Your task to perform on an android device: allow cookies in the chrome app Image 0: 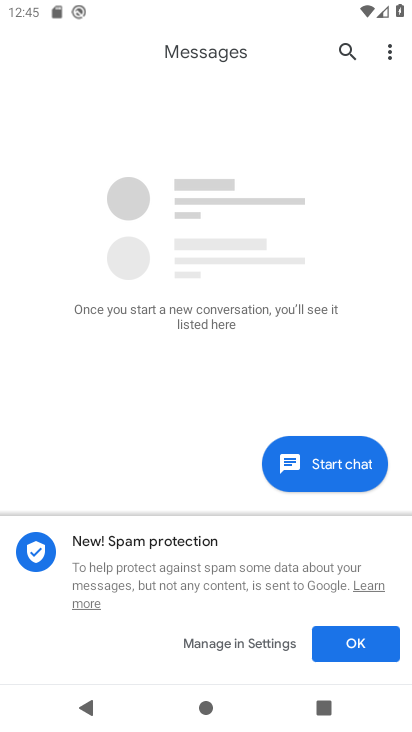
Step 0: press home button
Your task to perform on an android device: allow cookies in the chrome app Image 1: 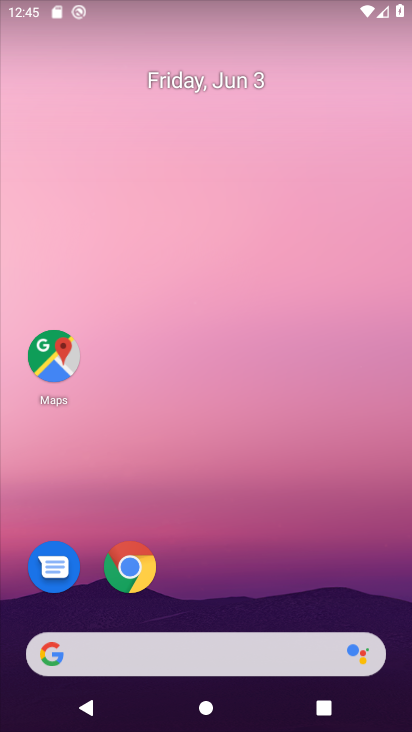
Step 1: drag from (223, 394) to (209, 253)
Your task to perform on an android device: allow cookies in the chrome app Image 2: 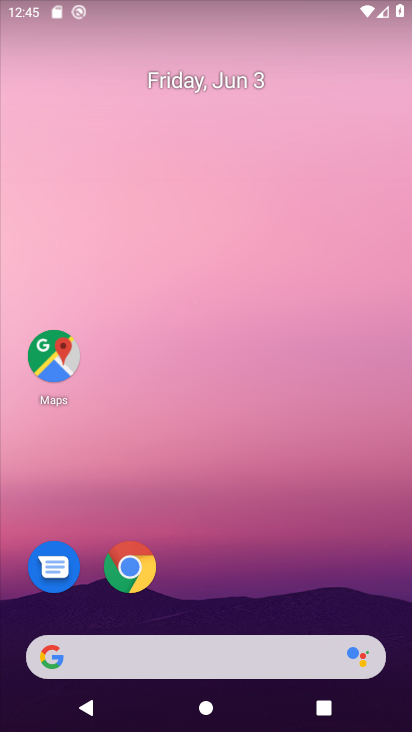
Step 2: drag from (234, 416) to (239, 314)
Your task to perform on an android device: allow cookies in the chrome app Image 3: 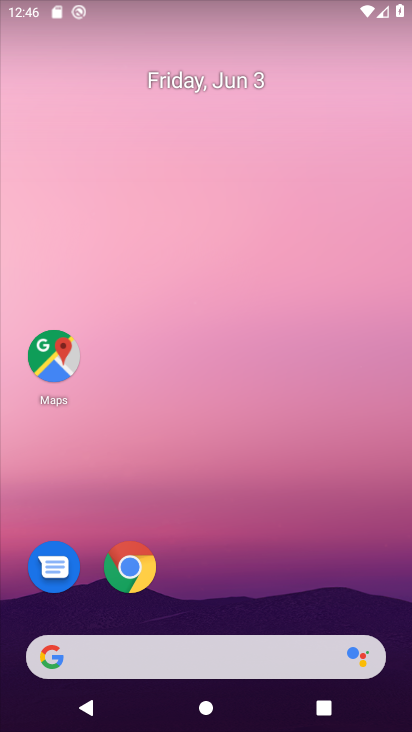
Step 3: drag from (219, 611) to (237, 174)
Your task to perform on an android device: allow cookies in the chrome app Image 4: 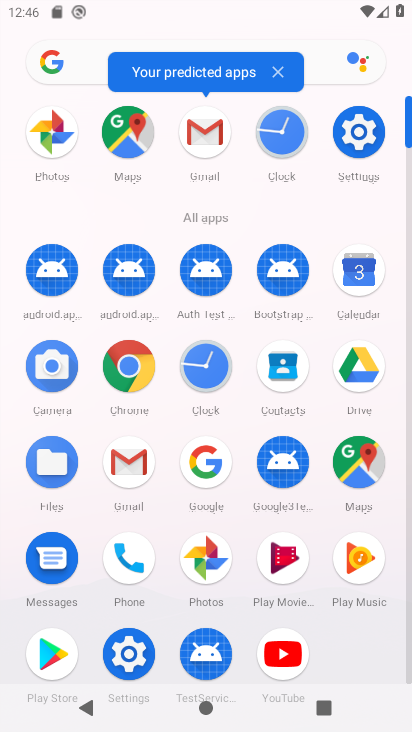
Step 4: click (357, 119)
Your task to perform on an android device: allow cookies in the chrome app Image 5: 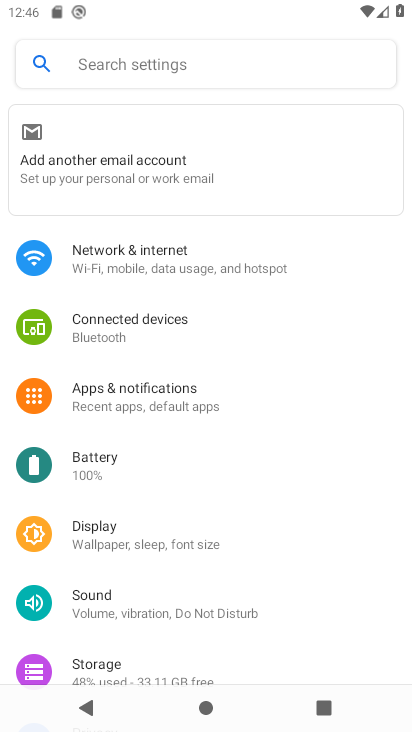
Step 5: drag from (249, 556) to (236, 270)
Your task to perform on an android device: allow cookies in the chrome app Image 6: 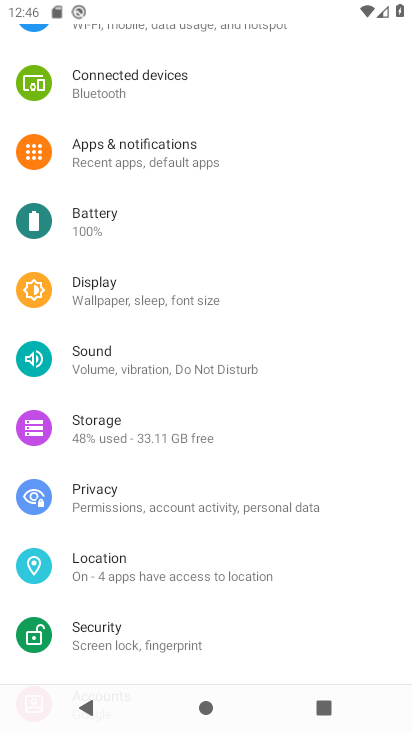
Step 6: press home button
Your task to perform on an android device: allow cookies in the chrome app Image 7: 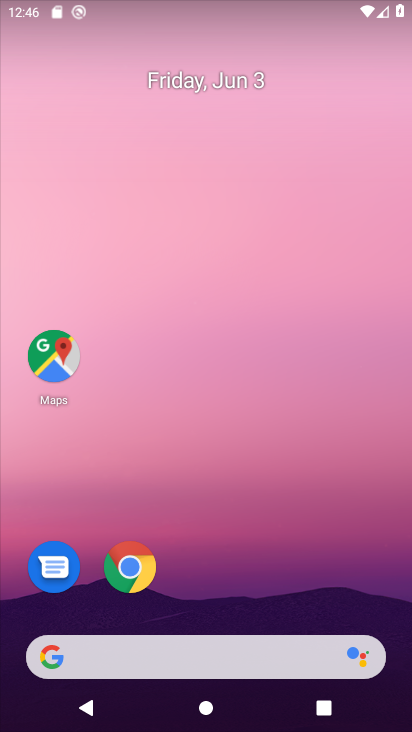
Step 7: drag from (261, 341) to (261, 239)
Your task to perform on an android device: allow cookies in the chrome app Image 8: 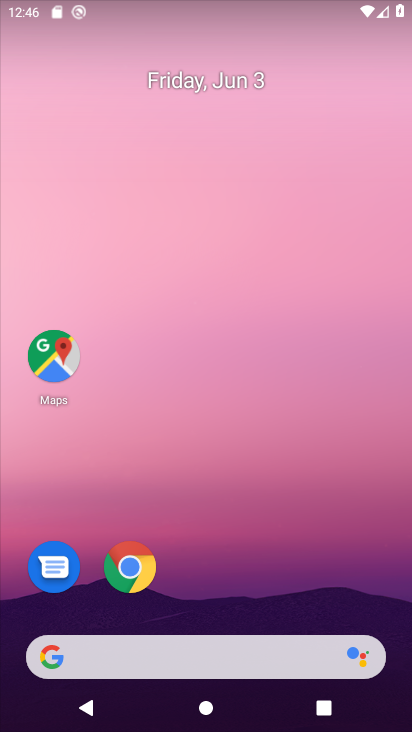
Step 8: click (135, 572)
Your task to perform on an android device: allow cookies in the chrome app Image 9: 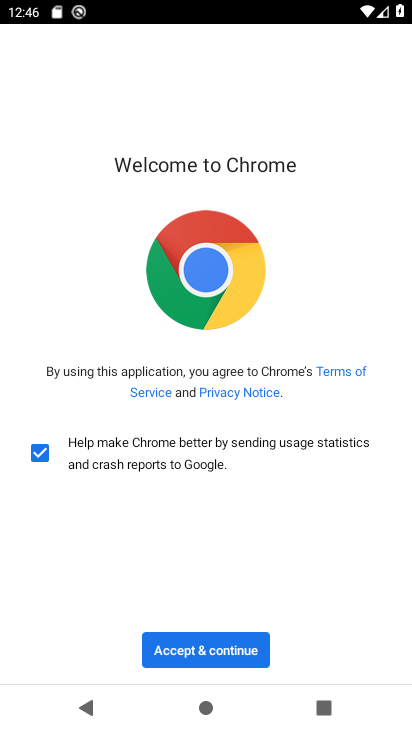
Step 9: click (229, 647)
Your task to perform on an android device: allow cookies in the chrome app Image 10: 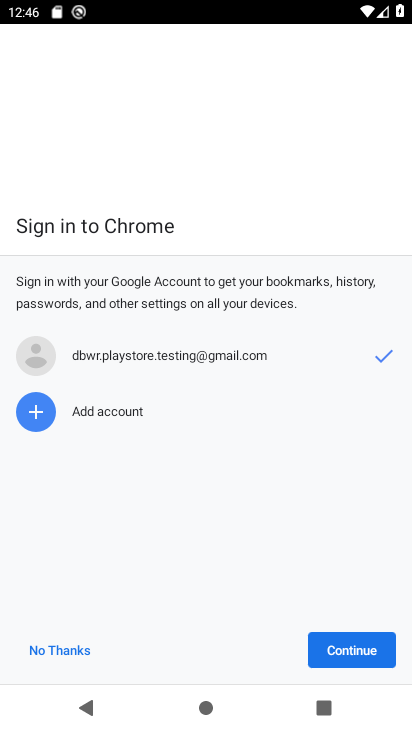
Step 10: click (346, 655)
Your task to perform on an android device: allow cookies in the chrome app Image 11: 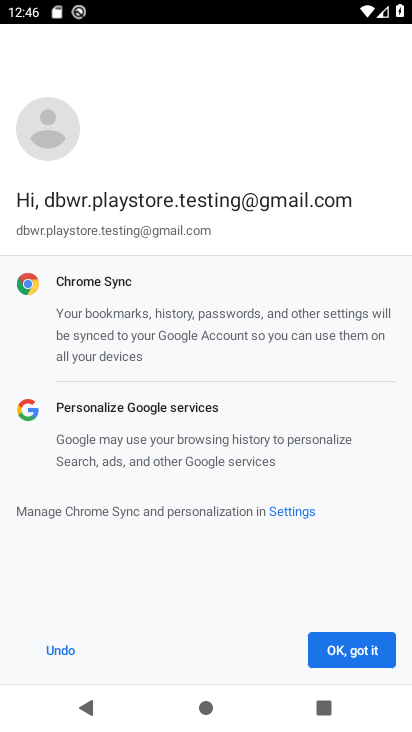
Step 11: click (341, 648)
Your task to perform on an android device: allow cookies in the chrome app Image 12: 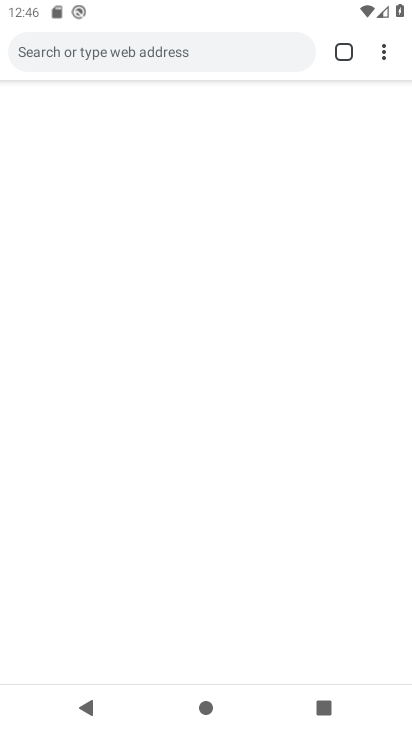
Step 12: click (383, 41)
Your task to perform on an android device: allow cookies in the chrome app Image 13: 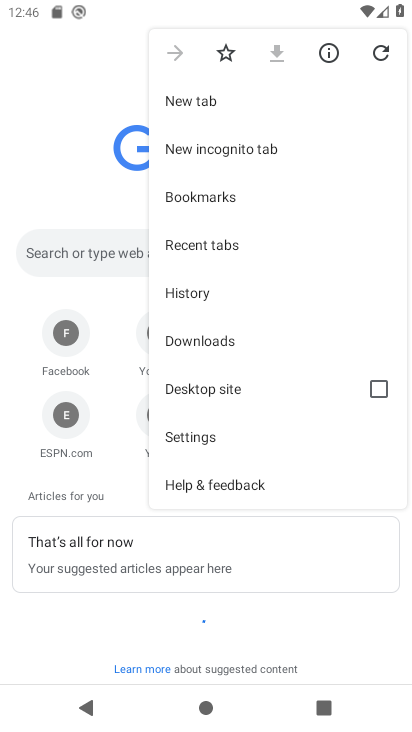
Step 13: click (219, 443)
Your task to perform on an android device: allow cookies in the chrome app Image 14: 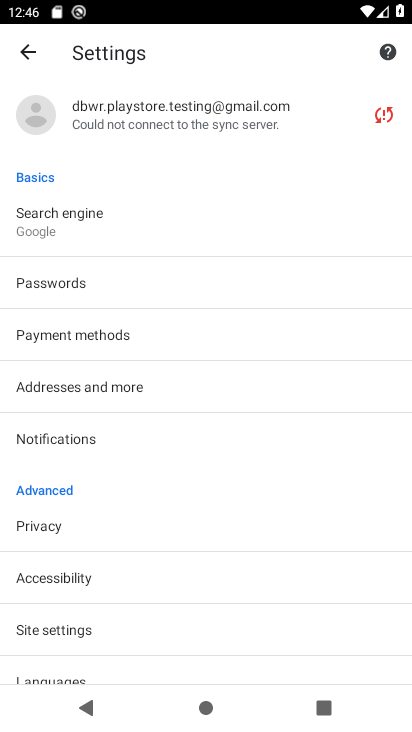
Step 14: click (90, 634)
Your task to perform on an android device: allow cookies in the chrome app Image 15: 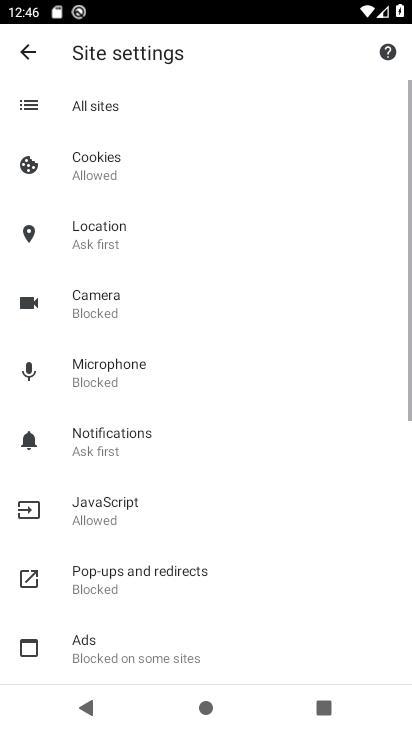
Step 15: click (134, 147)
Your task to perform on an android device: allow cookies in the chrome app Image 16: 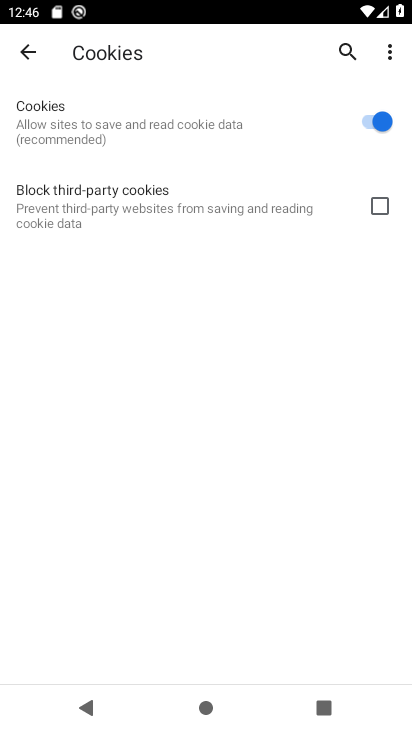
Step 16: task complete